Your task to perform on an android device: find photos in the google photos app Image 0: 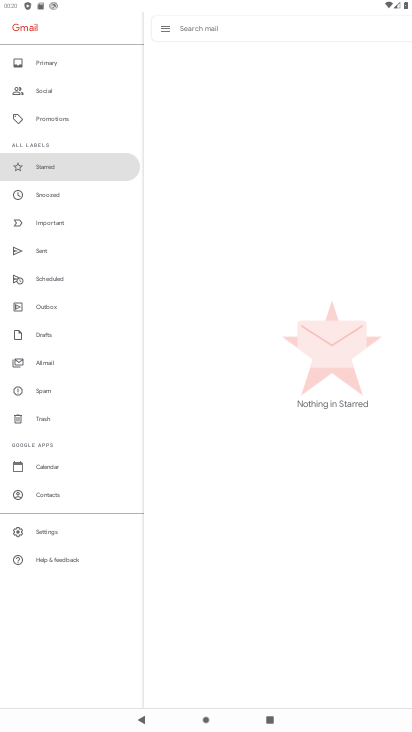
Step 0: drag from (187, 638) to (179, 133)
Your task to perform on an android device: find photos in the google photos app Image 1: 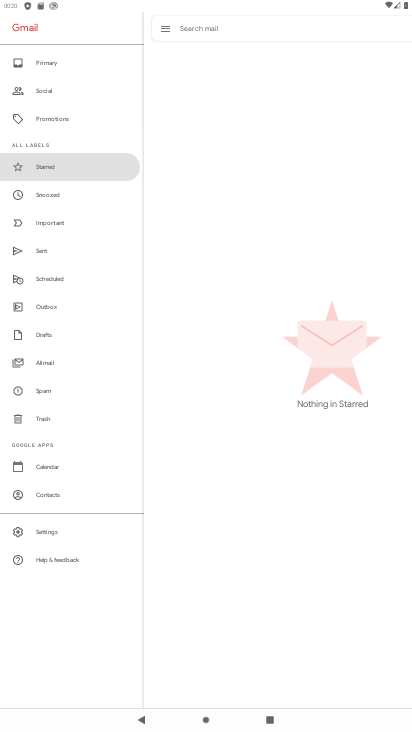
Step 1: press home button
Your task to perform on an android device: find photos in the google photos app Image 2: 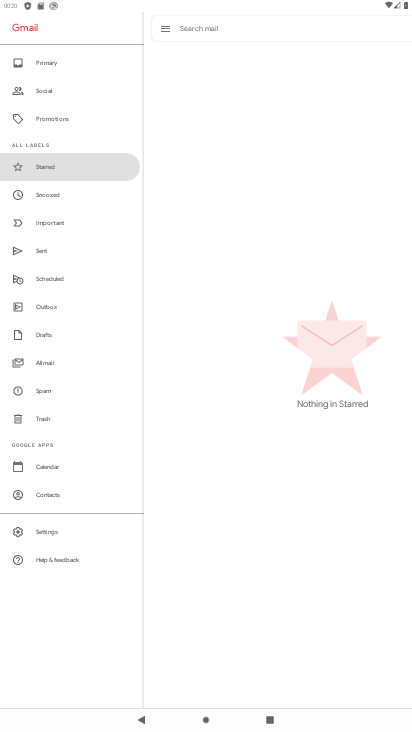
Step 2: drag from (179, 133) to (410, 519)
Your task to perform on an android device: find photos in the google photos app Image 3: 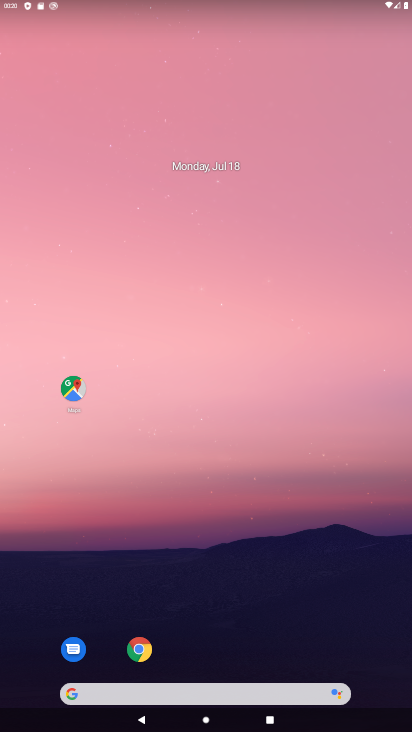
Step 3: drag from (175, 639) to (195, 116)
Your task to perform on an android device: find photos in the google photos app Image 4: 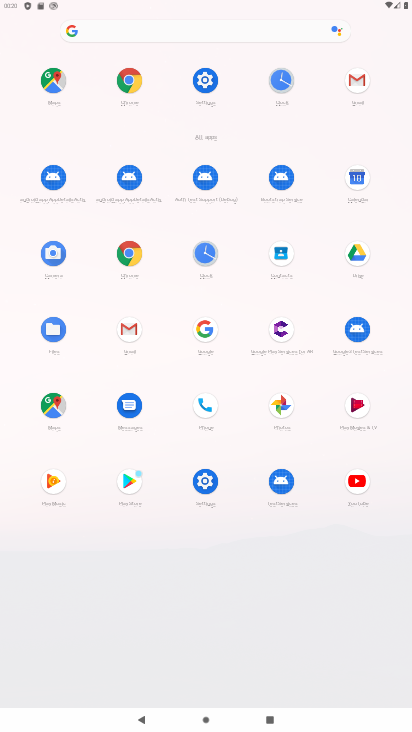
Step 4: click (276, 415)
Your task to perform on an android device: find photos in the google photos app Image 5: 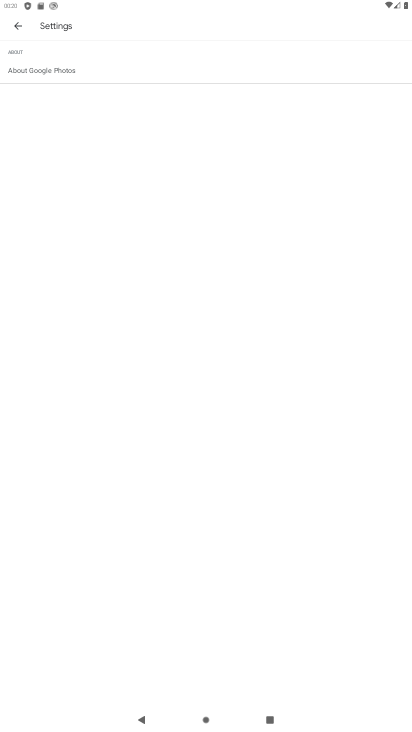
Step 5: click (13, 28)
Your task to perform on an android device: find photos in the google photos app Image 6: 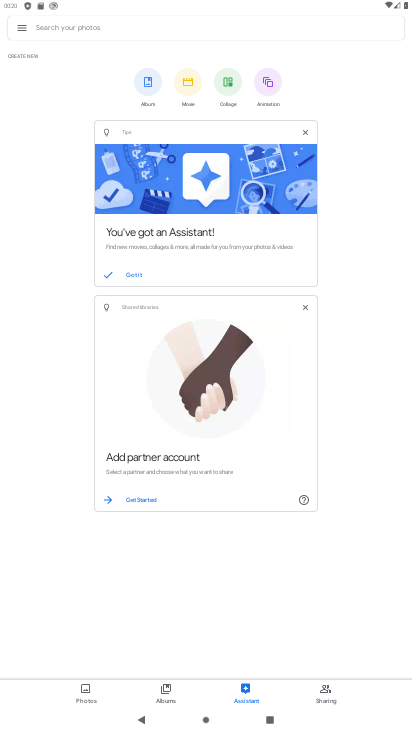
Step 6: click (79, 693)
Your task to perform on an android device: find photos in the google photos app Image 7: 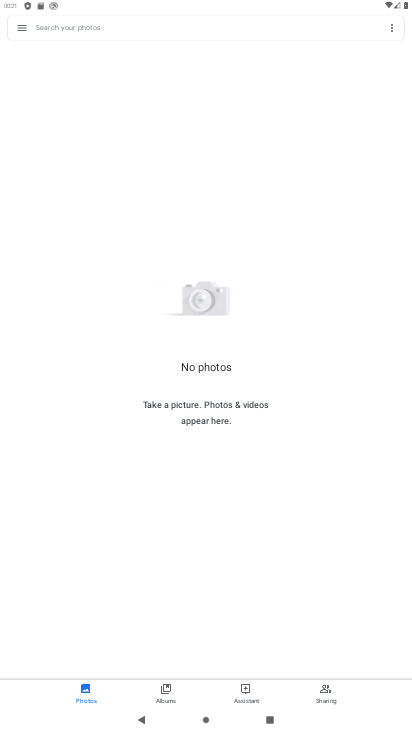
Step 7: task complete